Your task to perform on an android device: Open location settings Image 0: 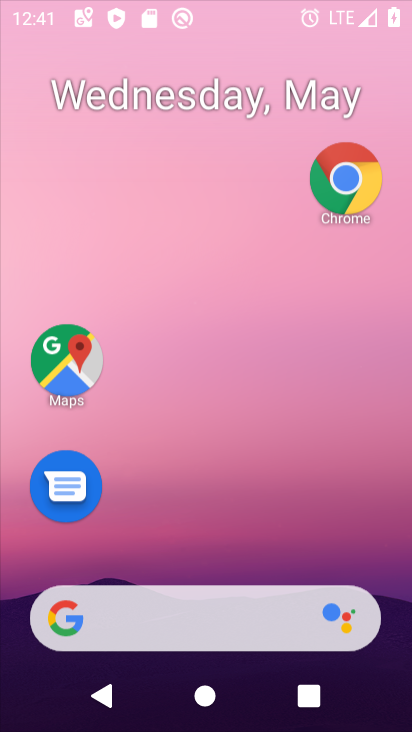
Step 0: drag from (268, 42) to (68, 3)
Your task to perform on an android device: Open location settings Image 1: 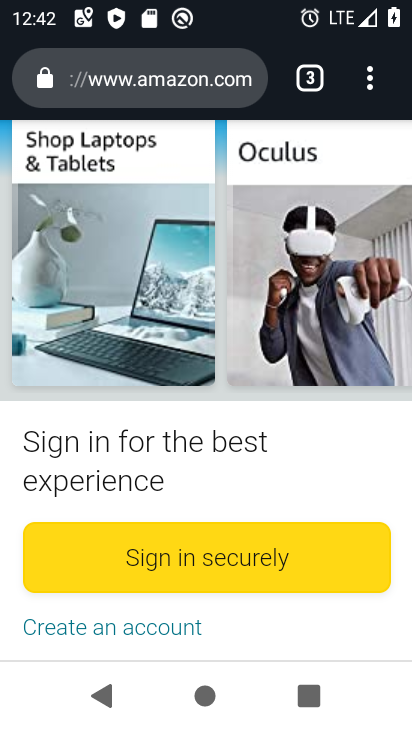
Step 1: press home button
Your task to perform on an android device: Open location settings Image 2: 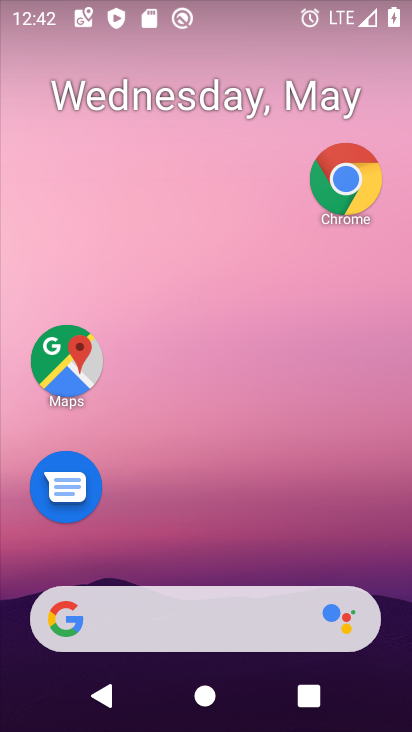
Step 2: drag from (185, 552) to (231, 31)
Your task to perform on an android device: Open location settings Image 3: 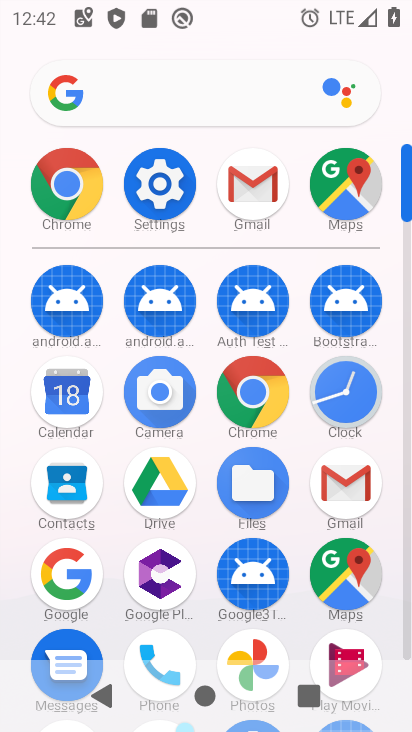
Step 3: click (170, 173)
Your task to perform on an android device: Open location settings Image 4: 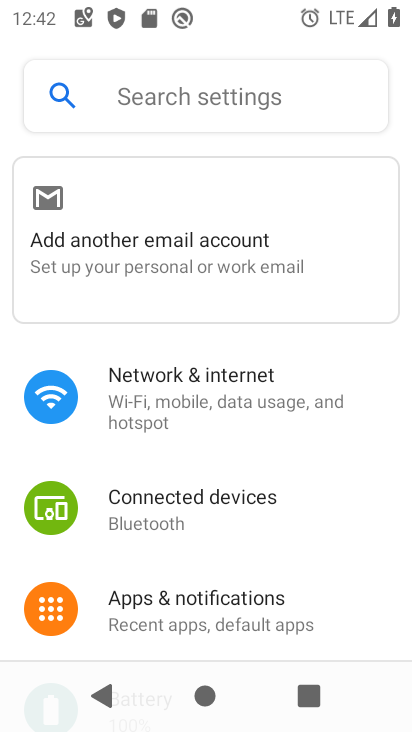
Step 4: drag from (193, 582) to (298, 15)
Your task to perform on an android device: Open location settings Image 5: 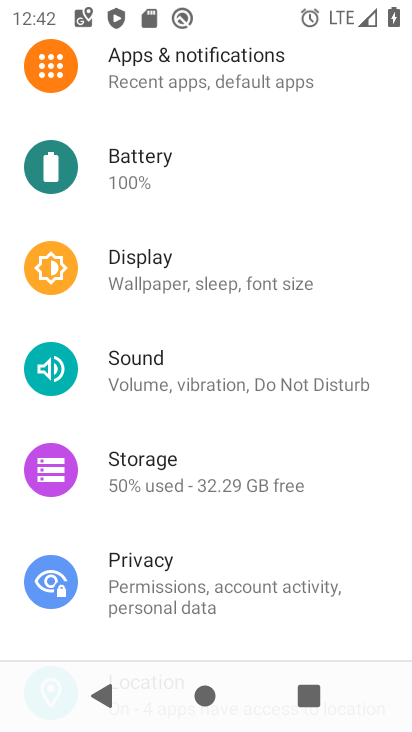
Step 5: drag from (180, 528) to (238, 33)
Your task to perform on an android device: Open location settings Image 6: 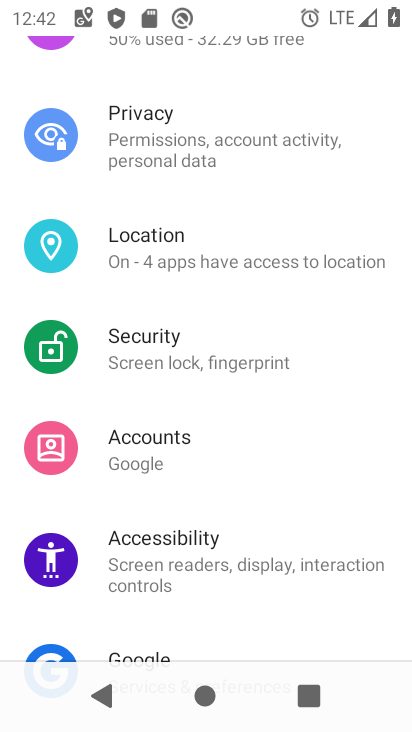
Step 6: click (163, 249)
Your task to perform on an android device: Open location settings Image 7: 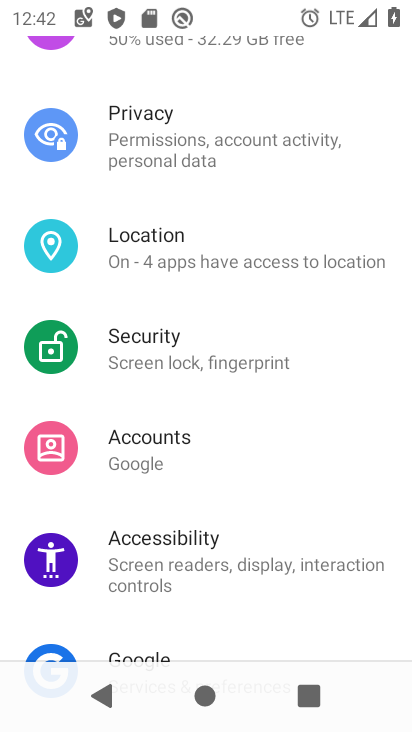
Step 7: click (162, 248)
Your task to perform on an android device: Open location settings Image 8: 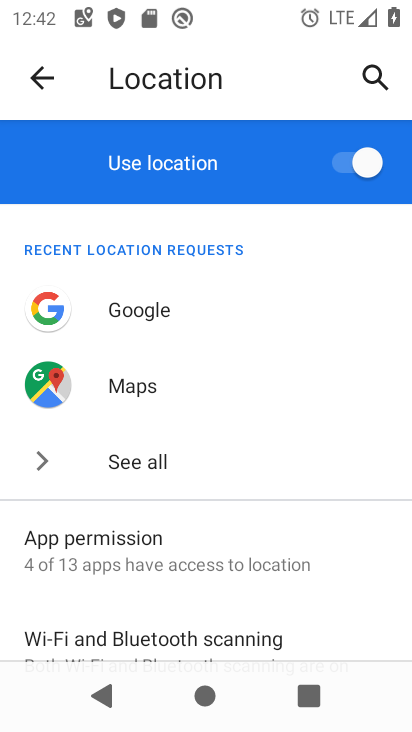
Step 8: task complete